Your task to perform on an android device: Search for vegetarian restaurants on Maps Image 0: 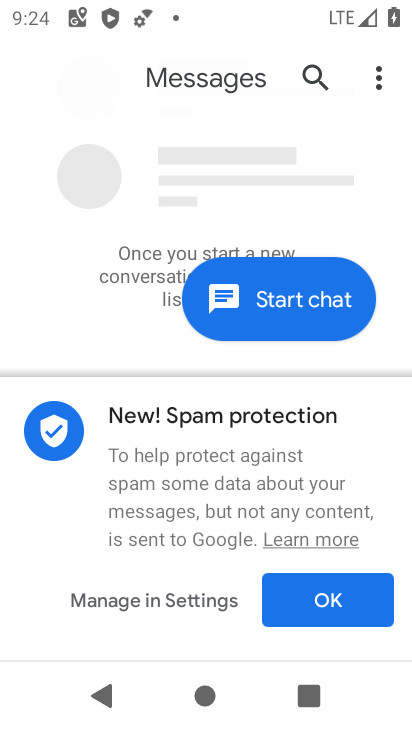
Step 0: press home button
Your task to perform on an android device: Search for vegetarian restaurants on Maps Image 1: 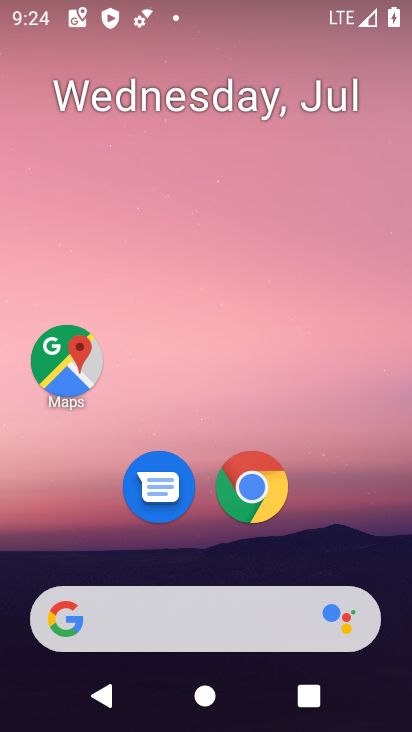
Step 1: click (69, 373)
Your task to perform on an android device: Search for vegetarian restaurants on Maps Image 2: 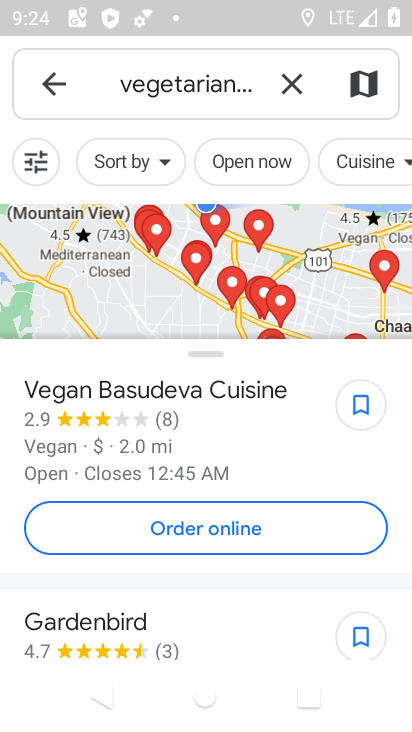
Step 2: drag from (197, 235) to (204, 347)
Your task to perform on an android device: Search for vegetarian restaurants on Maps Image 3: 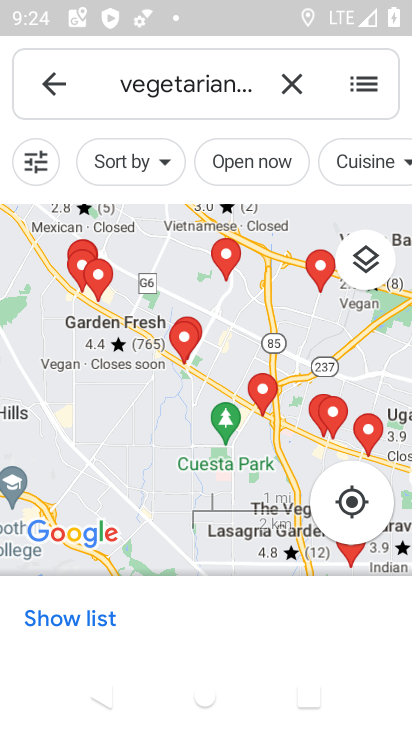
Step 3: click (204, 347)
Your task to perform on an android device: Search for vegetarian restaurants on Maps Image 4: 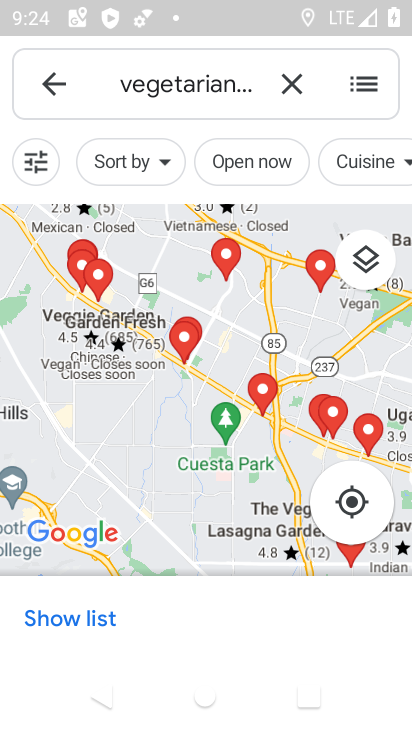
Step 4: task complete